Your task to perform on an android device: Go to calendar. Show me events next week Image 0: 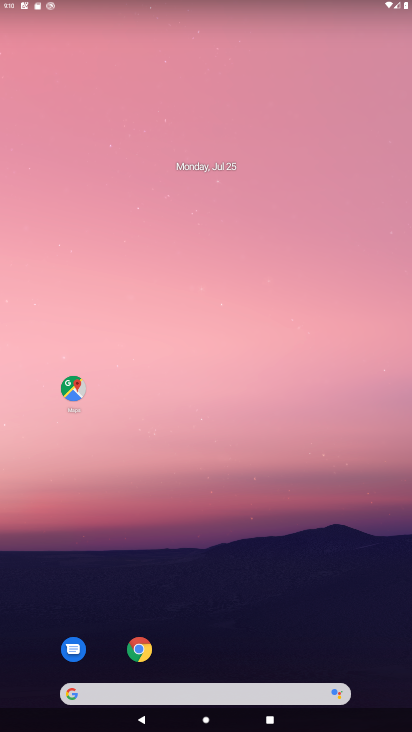
Step 0: drag from (210, 657) to (83, 51)
Your task to perform on an android device: Go to calendar. Show me events next week Image 1: 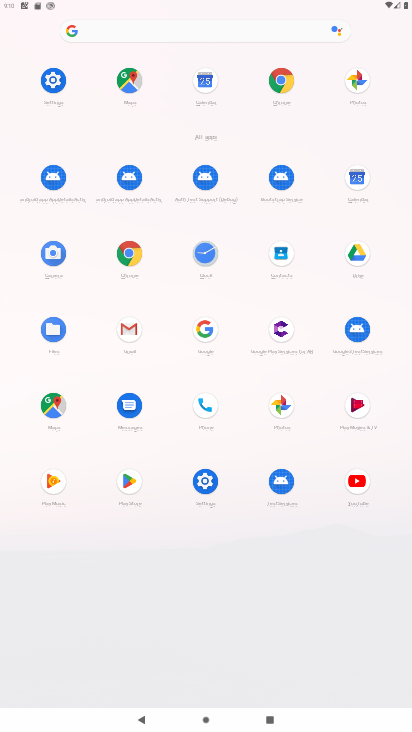
Step 1: click (363, 181)
Your task to perform on an android device: Go to calendar. Show me events next week Image 2: 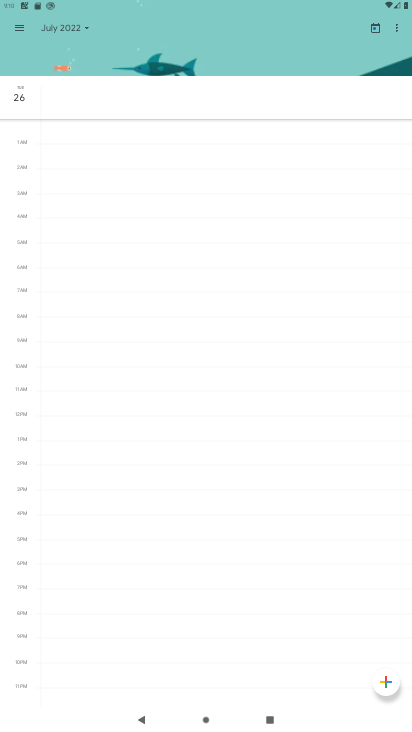
Step 2: click (15, 27)
Your task to perform on an android device: Go to calendar. Show me events next week Image 3: 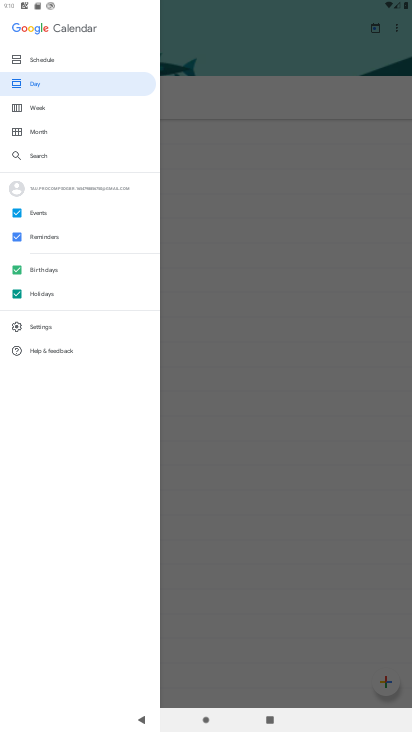
Step 3: click (26, 106)
Your task to perform on an android device: Go to calendar. Show me events next week Image 4: 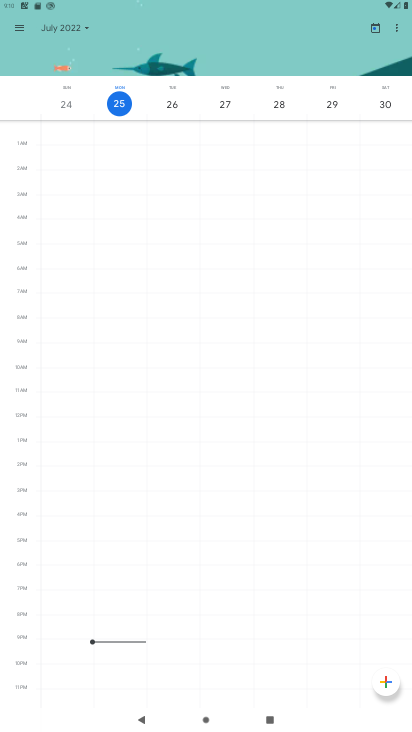
Step 4: task complete